Your task to perform on an android device: change notification settings in the gmail app Image 0: 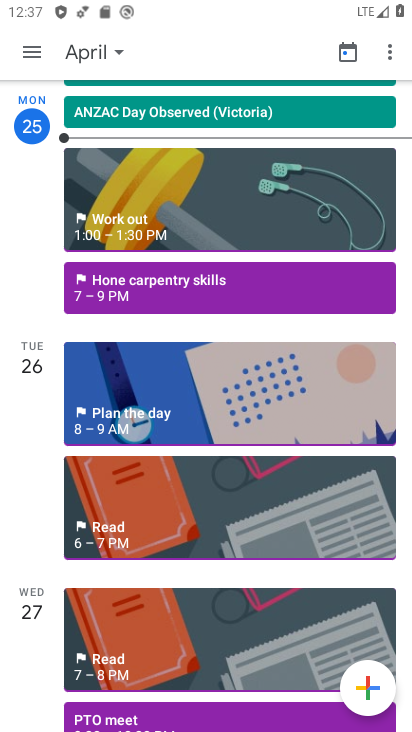
Step 0: press home button
Your task to perform on an android device: change notification settings in the gmail app Image 1: 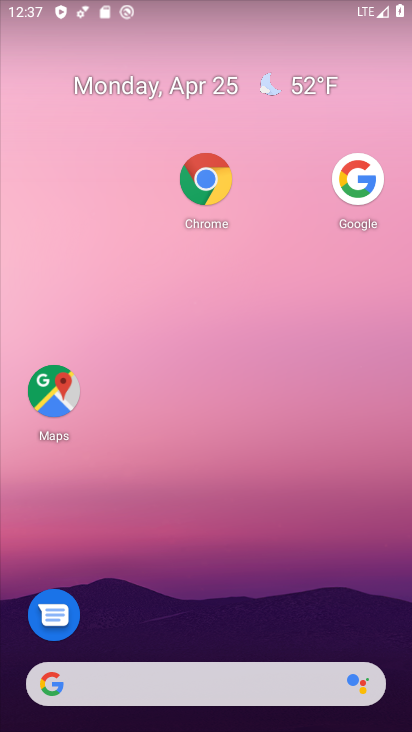
Step 1: drag from (192, 647) to (361, 52)
Your task to perform on an android device: change notification settings in the gmail app Image 2: 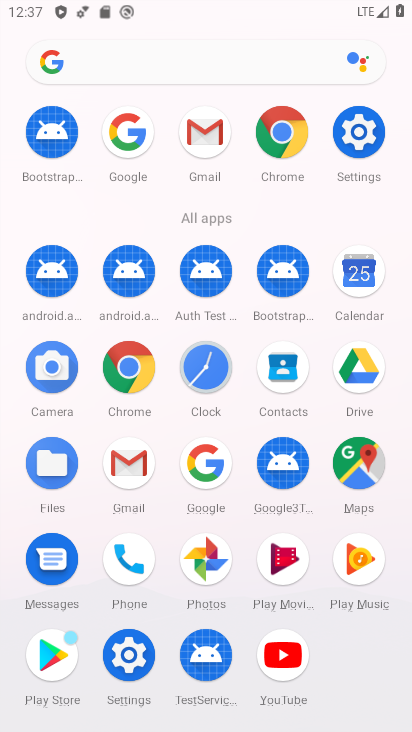
Step 2: click (198, 138)
Your task to perform on an android device: change notification settings in the gmail app Image 3: 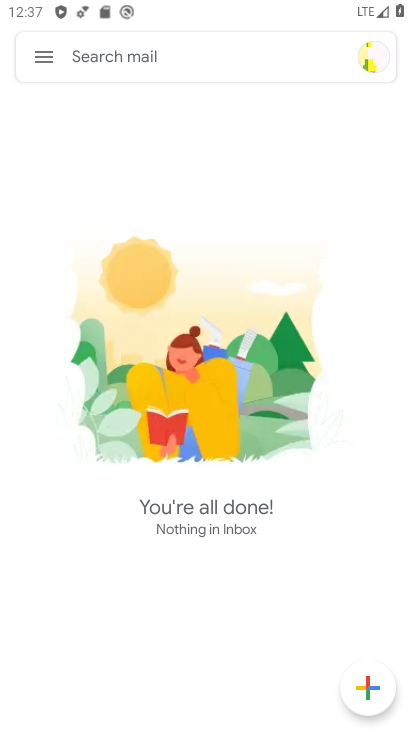
Step 3: click (42, 55)
Your task to perform on an android device: change notification settings in the gmail app Image 4: 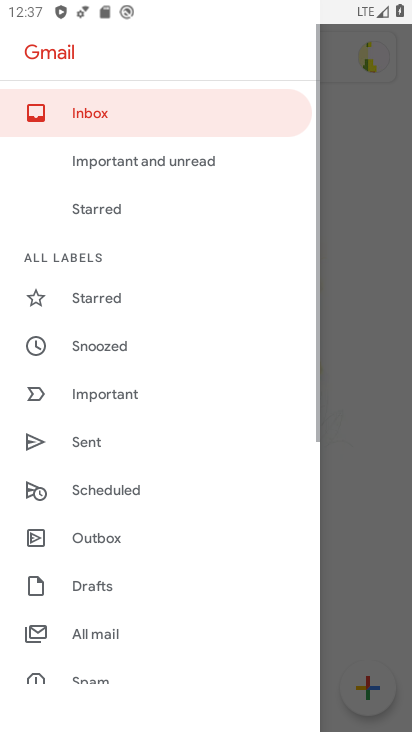
Step 4: drag from (175, 642) to (340, 51)
Your task to perform on an android device: change notification settings in the gmail app Image 5: 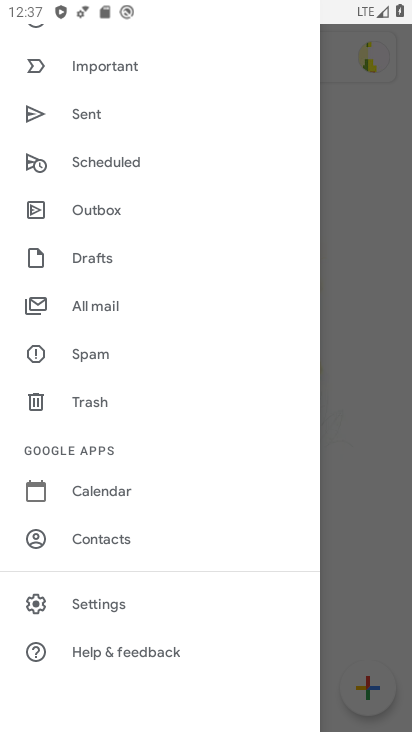
Step 5: click (121, 605)
Your task to perform on an android device: change notification settings in the gmail app Image 6: 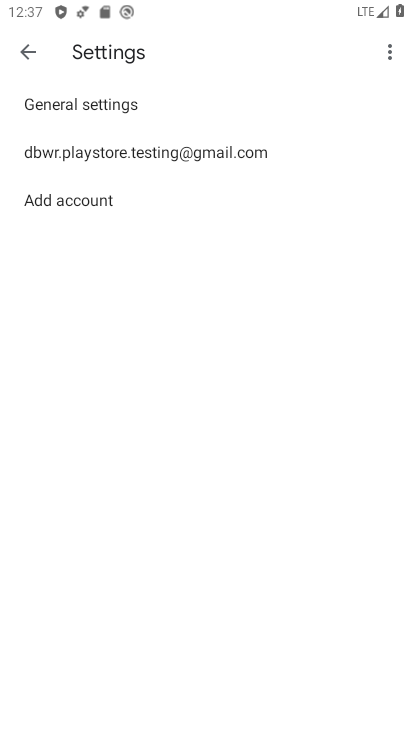
Step 6: click (216, 148)
Your task to perform on an android device: change notification settings in the gmail app Image 7: 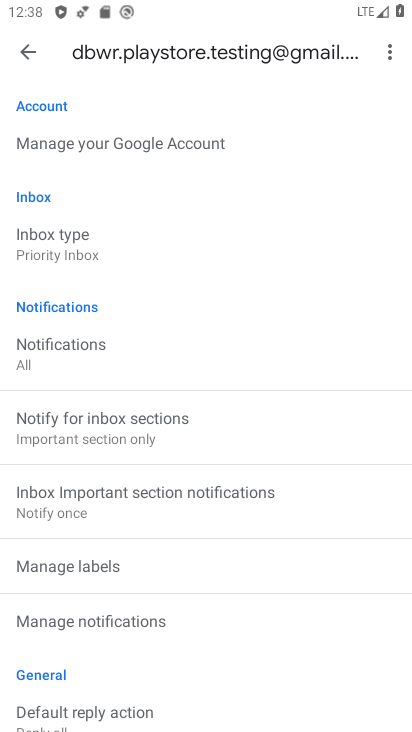
Step 7: drag from (188, 574) to (364, 74)
Your task to perform on an android device: change notification settings in the gmail app Image 8: 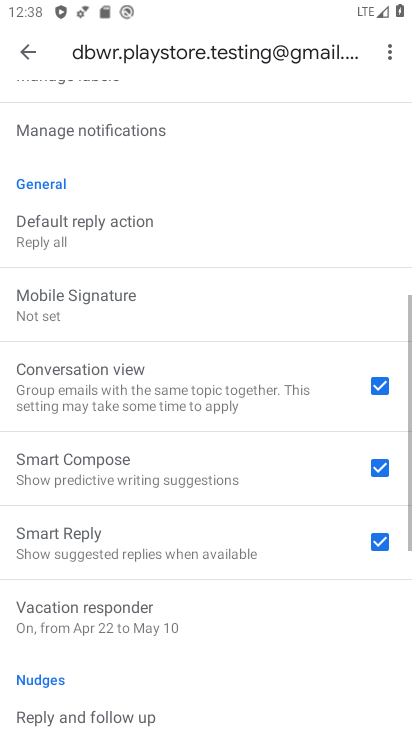
Step 8: drag from (290, 340) to (210, 658)
Your task to perform on an android device: change notification settings in the gmail app Image 9: 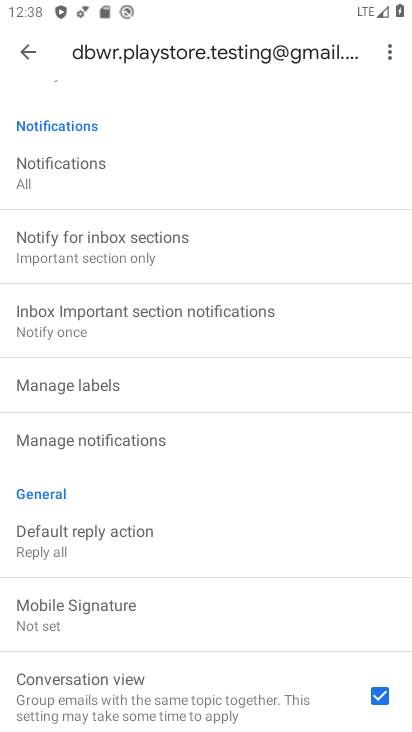
Step 9: drag from (280, 159) to (196, 665)
Your task to perform on an android device: change notification settings in the gmail app Image 10: 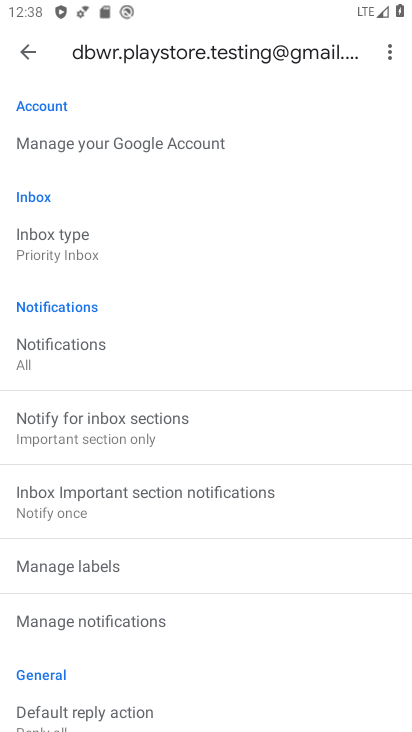
Step 10: click (64, 345)
Your task to perform on an android device: change notification settings in the gmail app Image 11: 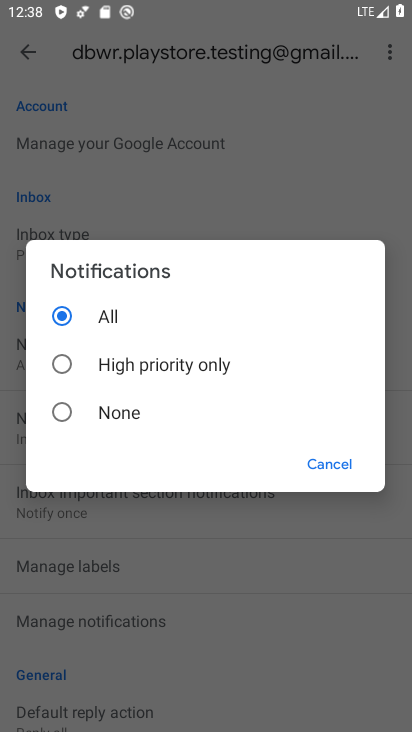
Step 11: click (61, 415)
Your task to perform on an android device: change notification settings in the gmail app Image 12: 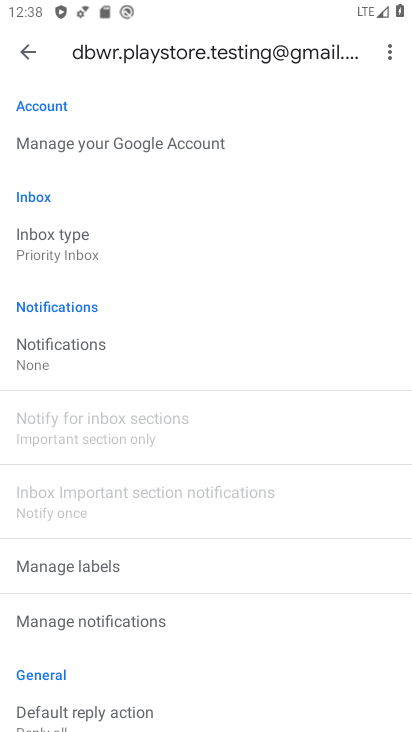
Step 12: task complete